Your task to perform on an android device: Open internet settings Image 0: 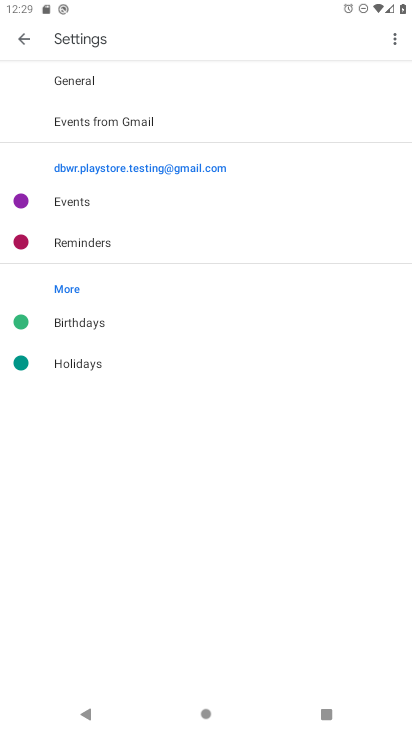
Step 0: press home button
Your task to perform on an android device: Open internet settings Image 1: 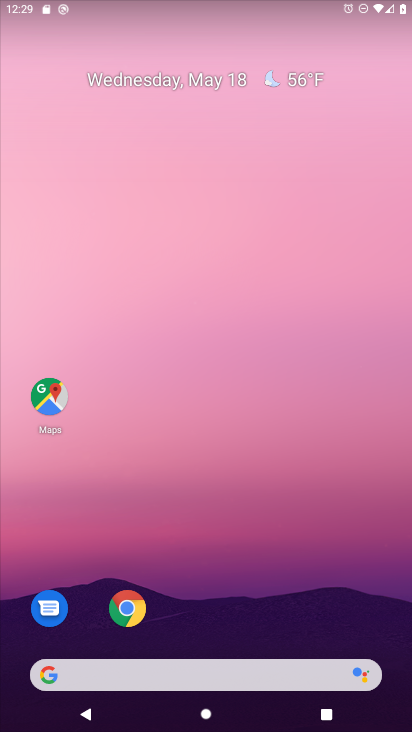
Step 1: drag from (226, 693) to (204, 312)
Your task to perform on an android device: Open internet settings Image 2: 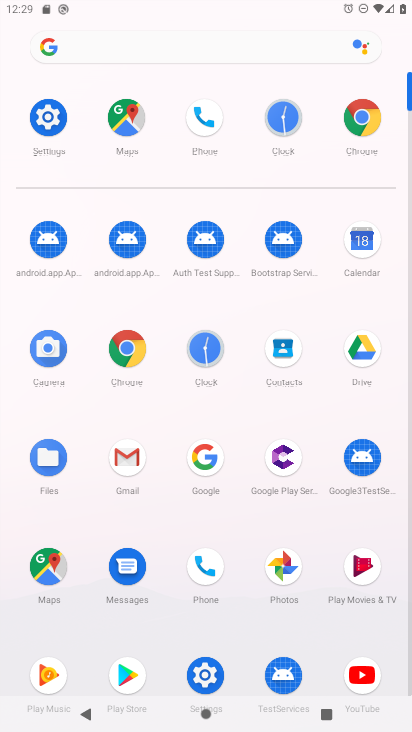
Step 2: click (50, 144)
Your task to perform on an android device: Open internet settings Image 3: 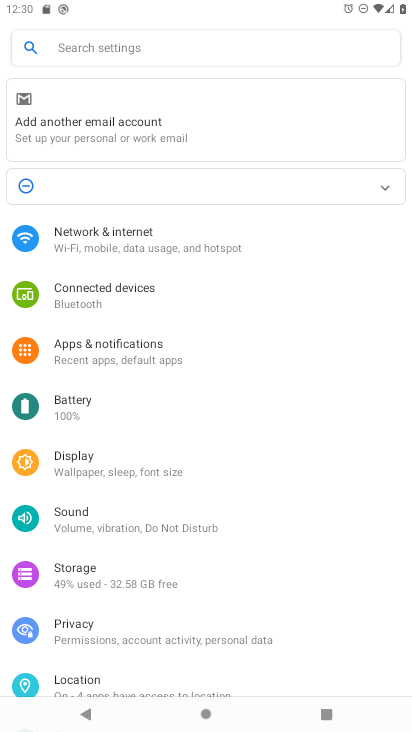
Step 3: click (110, 241)
Your task to perform on an android device: Open internet settings Image 4: 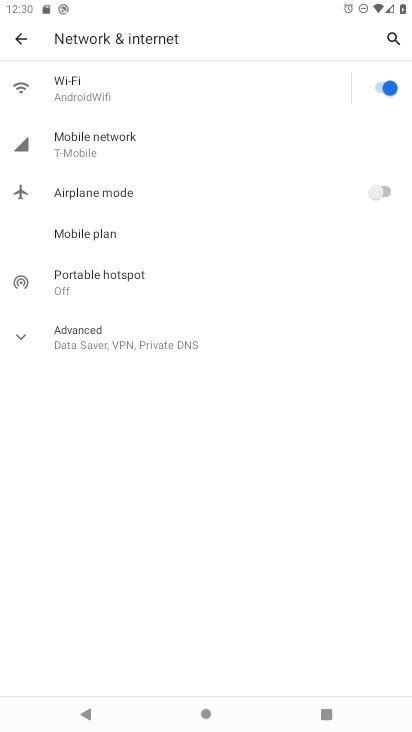
Step 4: task complete